Your task to perform on an android device: choose inbox layout in the gmail app Image 0: 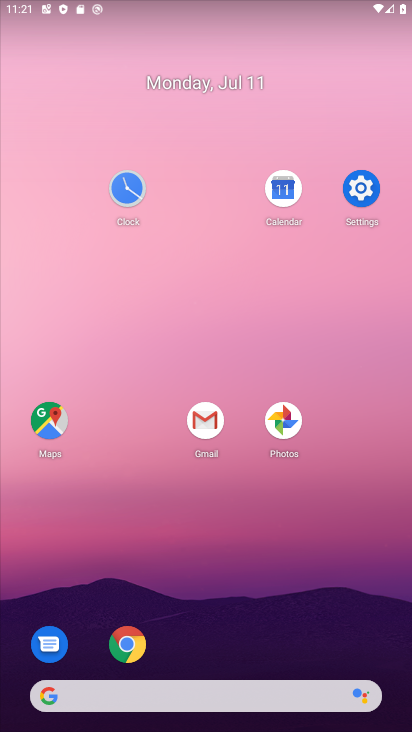
Step 0: click (213, 419)
Your task to perform on an android device: choose inbox layout in the gmail app Image 1: 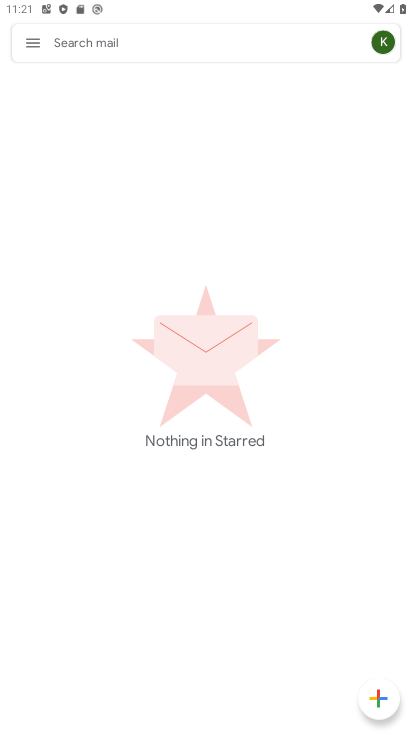
Step 1: click (28, 42)
Your task to perform on an android device: choose inbox layout in the gmail app Image 2: 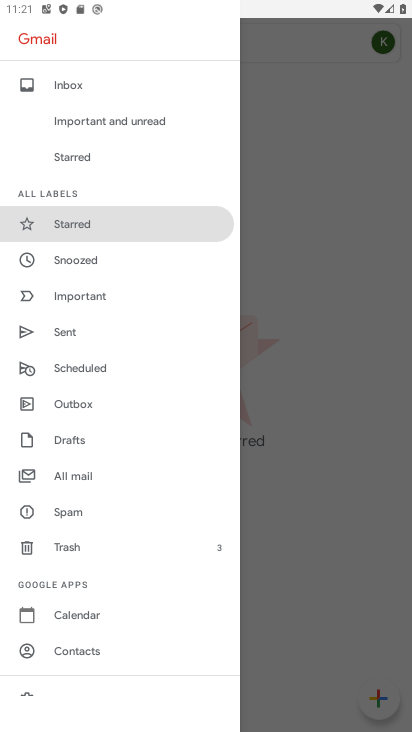
Step 2: drag from (126, 617) to (49, 246)
Your task to perform on an android device: choose inbox layout in the gmail app Image 3: 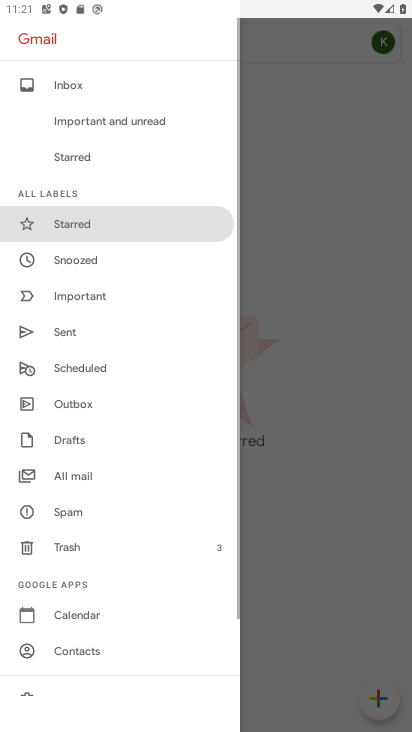
Step 3: drag from (107, 516) to (145, 172)
Your task to perform on an android device: choose inbox layout in the gmail app Image 4: 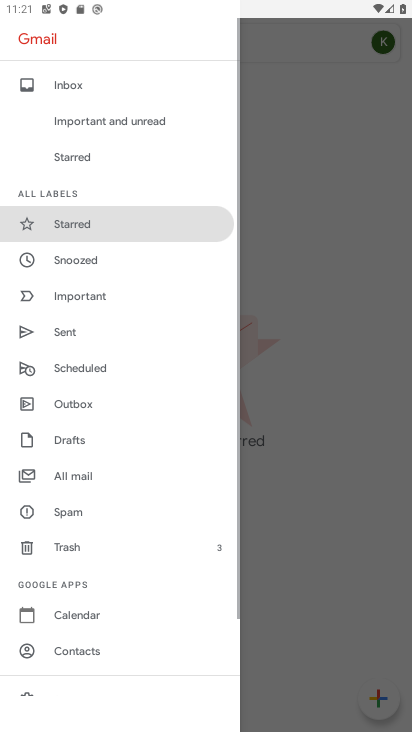
Step 4: drag from (136, 618) to (183, 240)
Your task to perform on an android device: choose inbox layout in the gmail app Image 5: 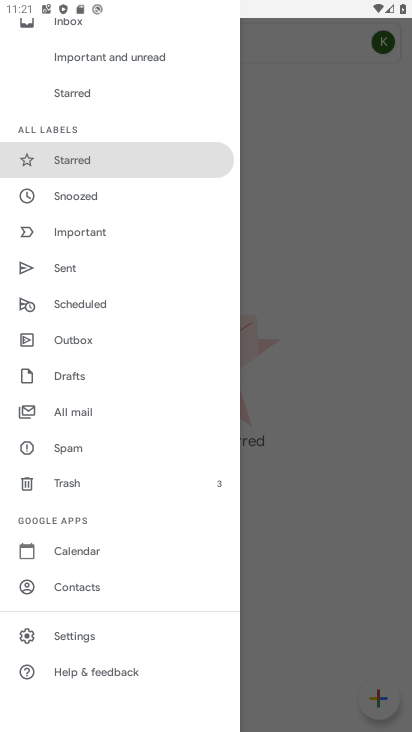
Step 5: click (103, 646)
Your task to perform on an android device: choose inbox layout in the gmail app Image 6: 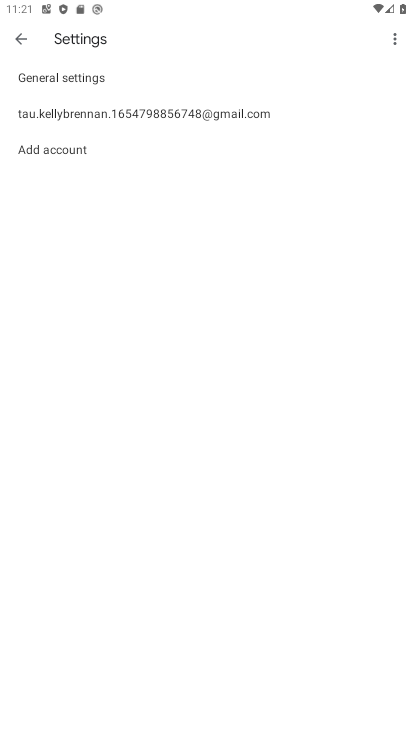
Step 6: click (214, 121)
Your task to perform on an android device: choose inbox layout in the gmail app Image 7: 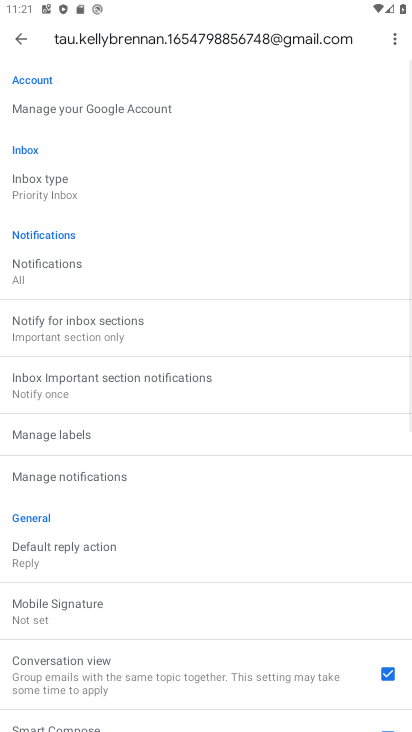
Step 7: click (177, 197)
Your task to perform on an android device: choose inbox layout in the gmail app Image 8: 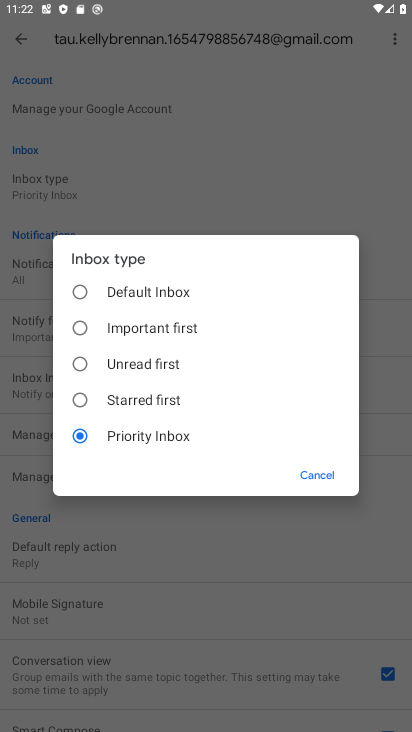
Step 8: task complete